Your task to perform on an android device: Open sound settings Image 0: 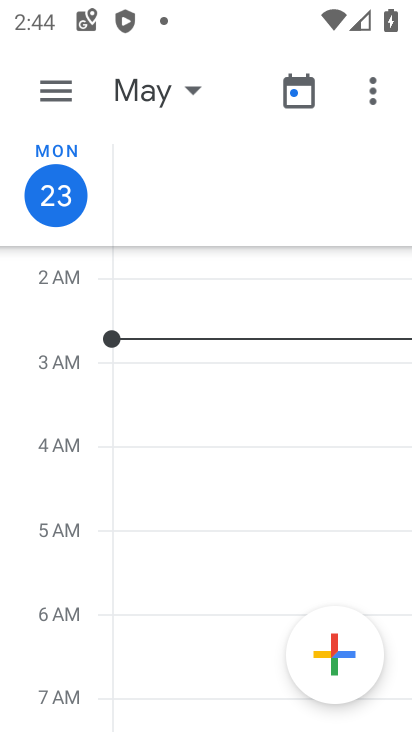
Step 0: press back button
Your task to perform on an android device: Open sound settings Image 1: 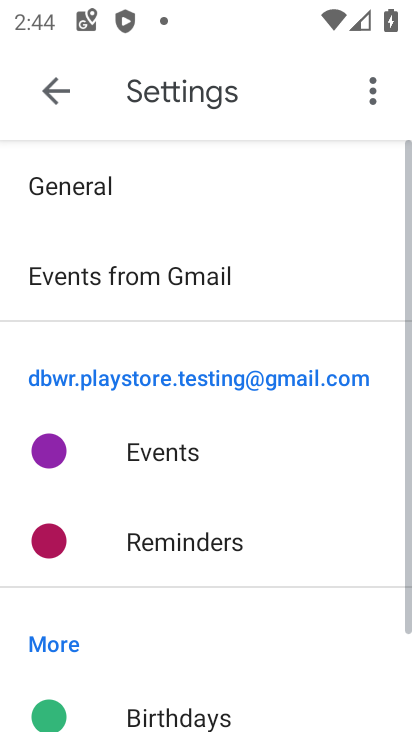
Step 1: press back button
Your task to perform on an android device: Open sound settings Image 2: 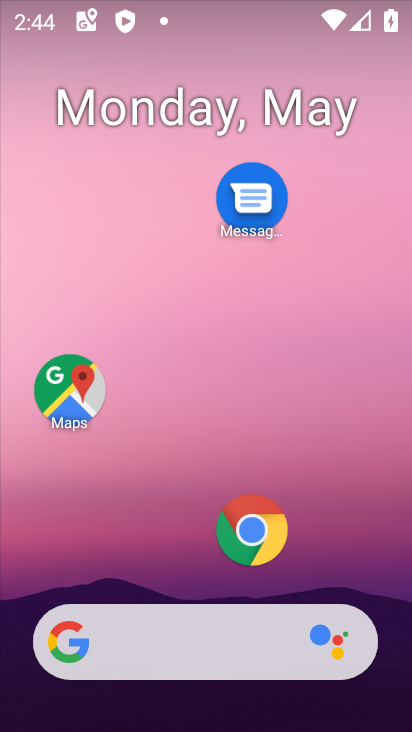
Step 2: drag from (128, 564) to (266, 61)
Your task to perform on an android device: Open sound settings Image 3: 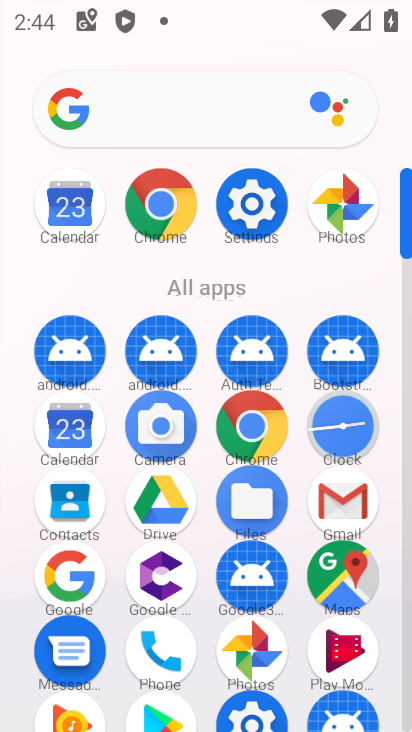
Step 3: click (252, 191)
Your task to perform on an android device: Open sound settings Image 4: 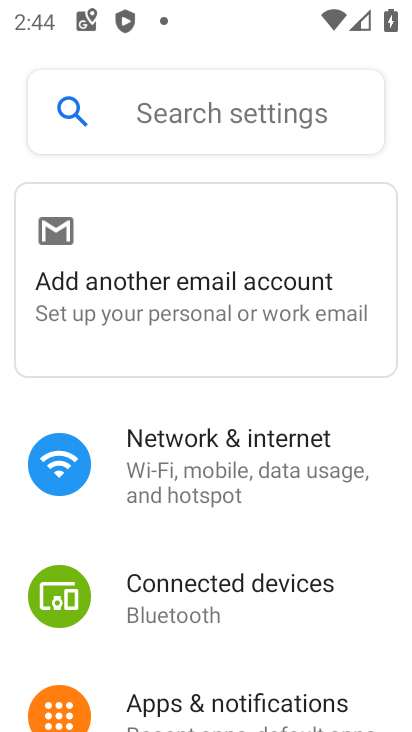
Step 4: drag from (195, 677) to (301, 124)
Your task to perform on an android device: Open sound settings Image 5: 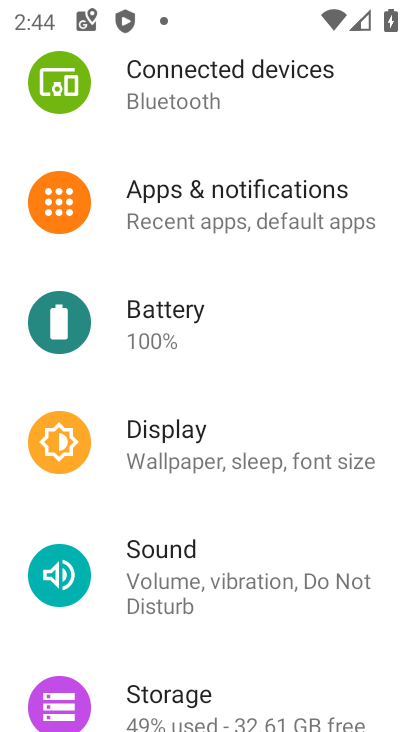
Step 5: click (215, 566)
Your task to perform on an android device: Open sound settings Image 6: 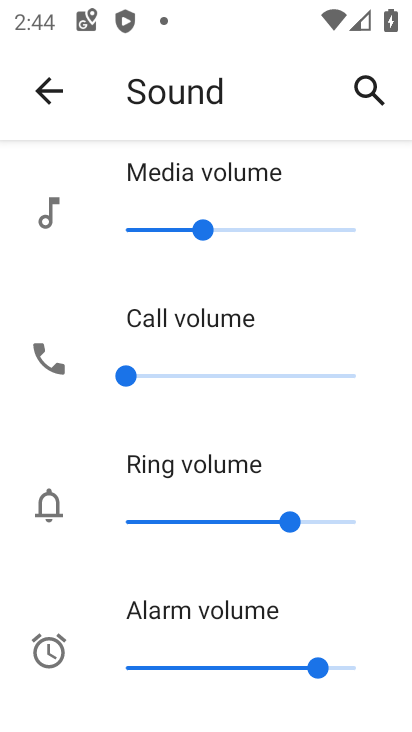
Step 6: task complete